Your task to perform on an android device: Go to network settings Image 0: 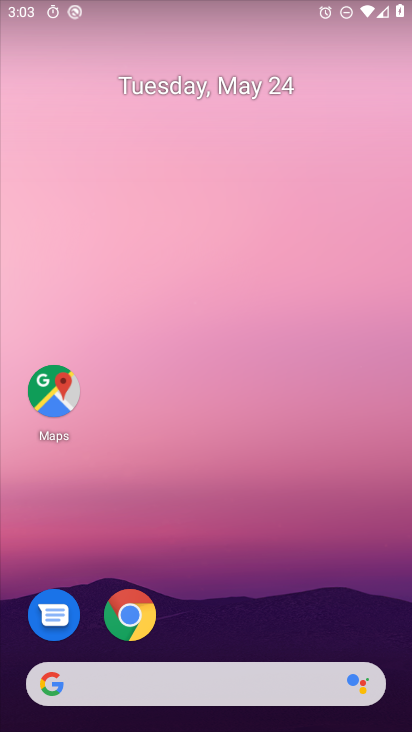
Step 0: drag from (215, 652) to (215, 210)
Your task to perform on an android device: Go to network settings Image 1: 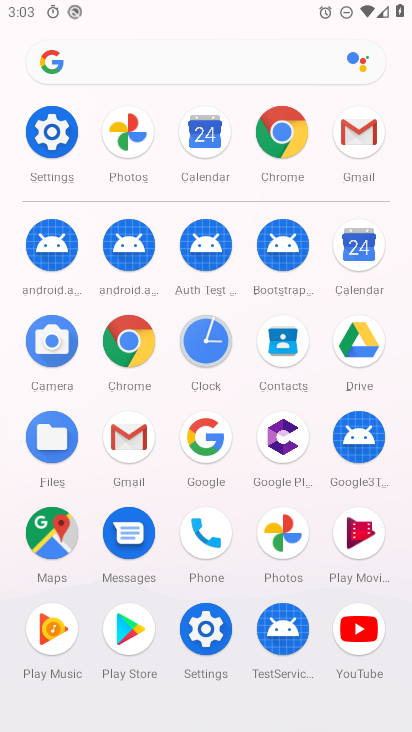
Step 1: click (40, 131)
Your task to perform on an android device: Go to network settings Image 2: 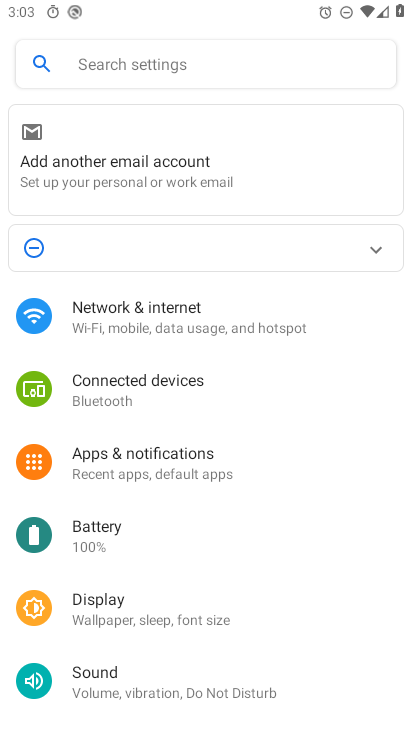
Step 2: click (180, 321)
Your task to perform on an android device: Go to network settings Image 3: 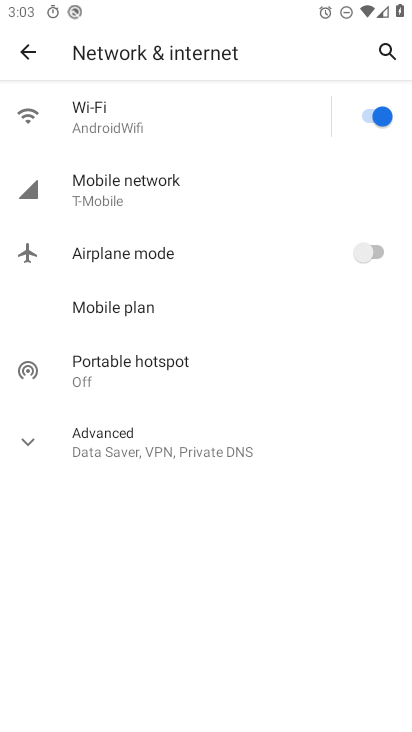
Step 3: click (143, 442)
Your task to perform on an android device: Go to network settings Image 4: 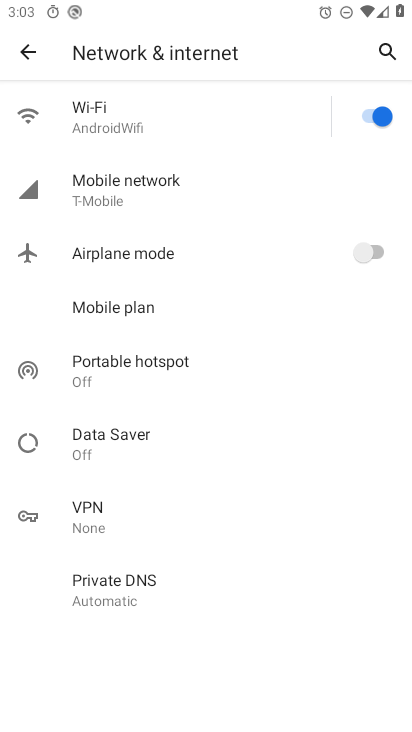
Step 4: task complete